Your task to perform on an android device: Open Yahoo.com Image 0: 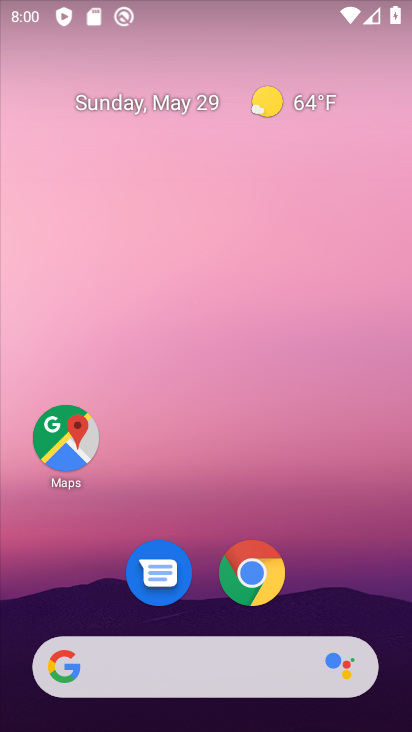
Step 0: drag from (265, 691) to (118, 89)
Your task to perform on an android device: Open Yahoo.com Image 1: 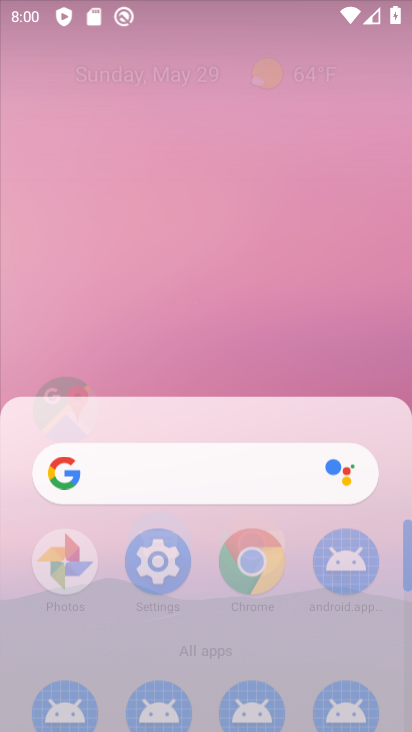
Step 1: drag from (236, 571) to (196, 29)
Your task to perform on an android device: Open Yahoo.com Image 2: 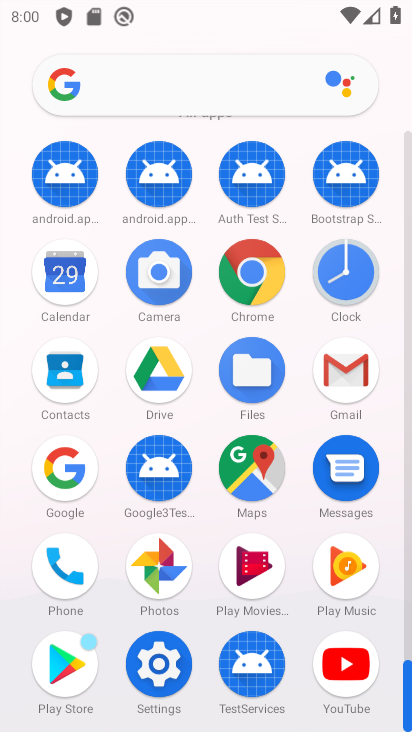
Step 2: drag from (257, 521) to (168, 68)
Your task to perform on an android device: Open Yahoo.com Image 3: 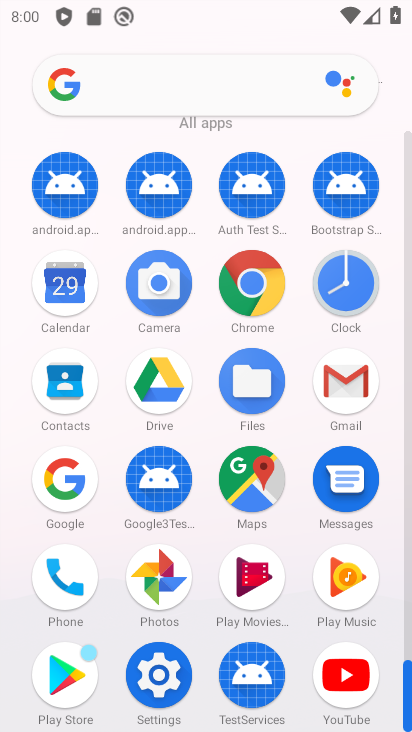
Step 3: click (244, 279)
Your task to perform on an android device: Open Yahoo.com Image 4: 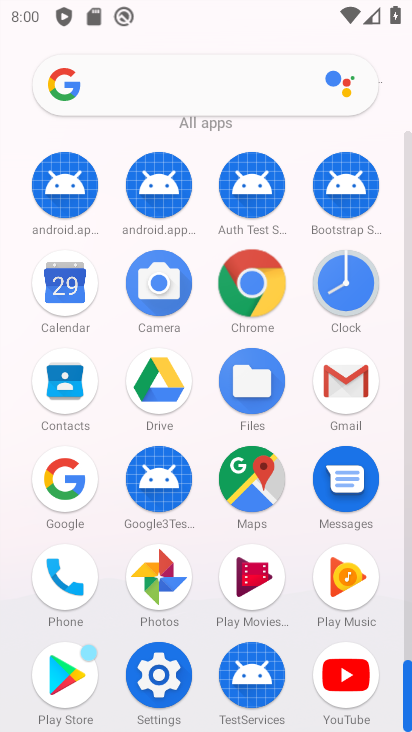
Step 4: click (244, 279)
Your task to perform on an android device: Open Yahoo.com Image 5: 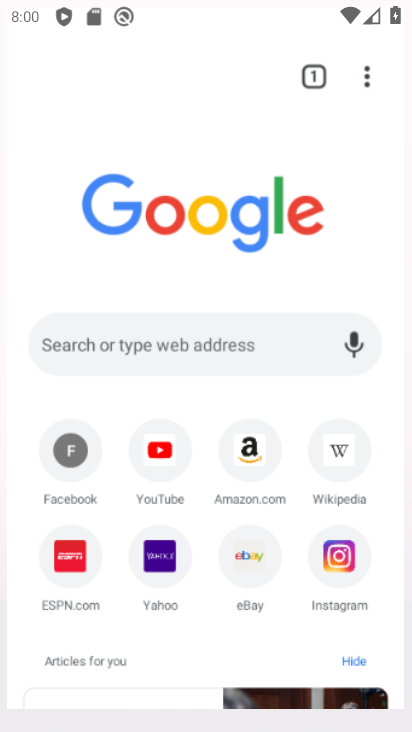
Step 5: click (244, 279)
Your task to perform on an android device: Open Yahoo.com Image 6: 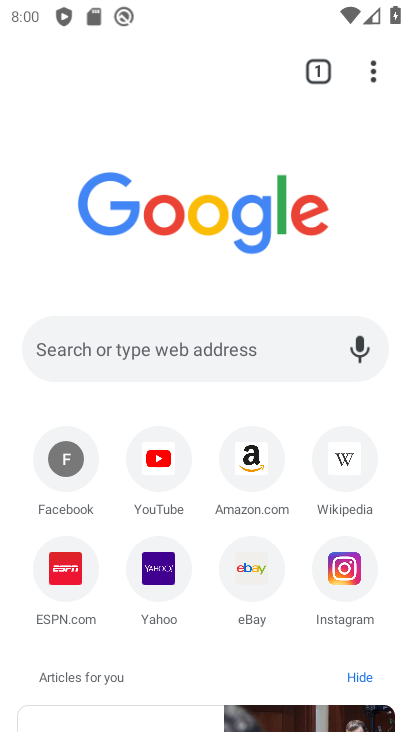
Step 6: click (159, 571)
Your task to perform on an android device: Open Yahoo.com Image 7: 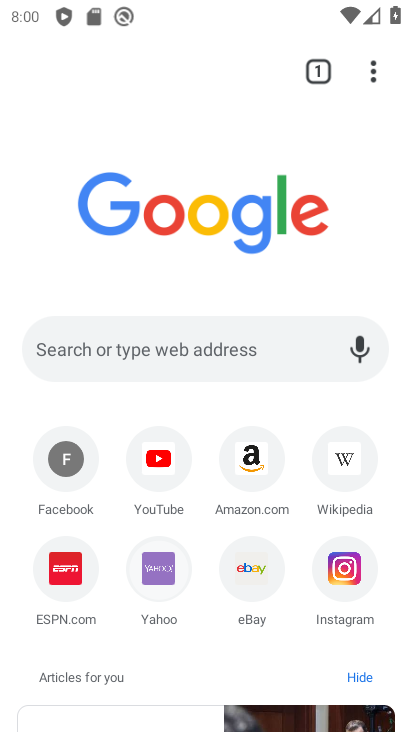
Step 7: click (158, 572)
Your task to perform on an android device: Open Yahoo.com Image 8: 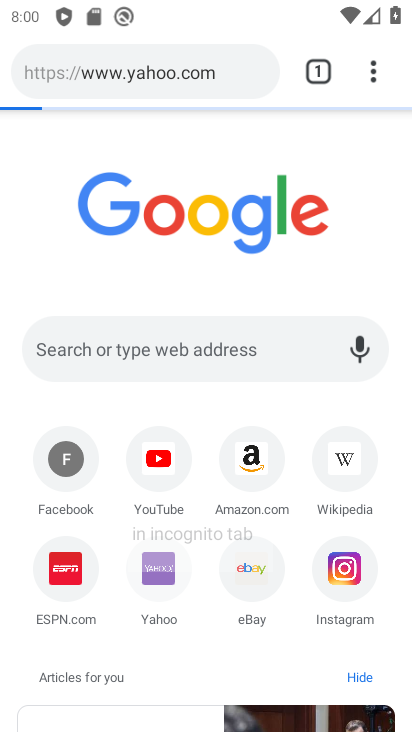
Step 8: click (153, 581)
Your task to perform on an android device: Open Yahoo.com Image 9: 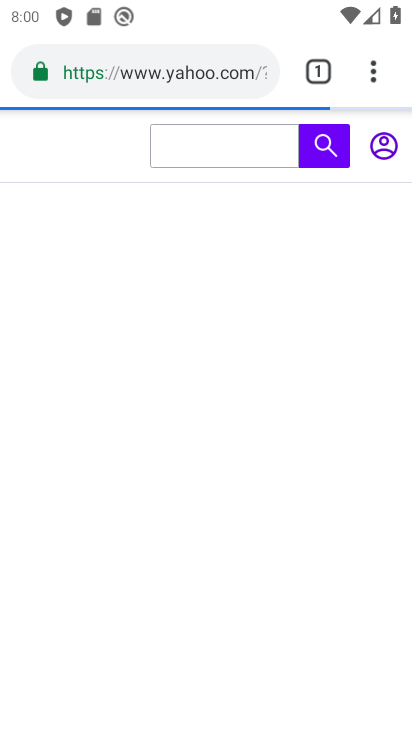
Step 9: task complete